Your task to perform on an android device: Play the latest video from the Wall Street Journal Image 0: 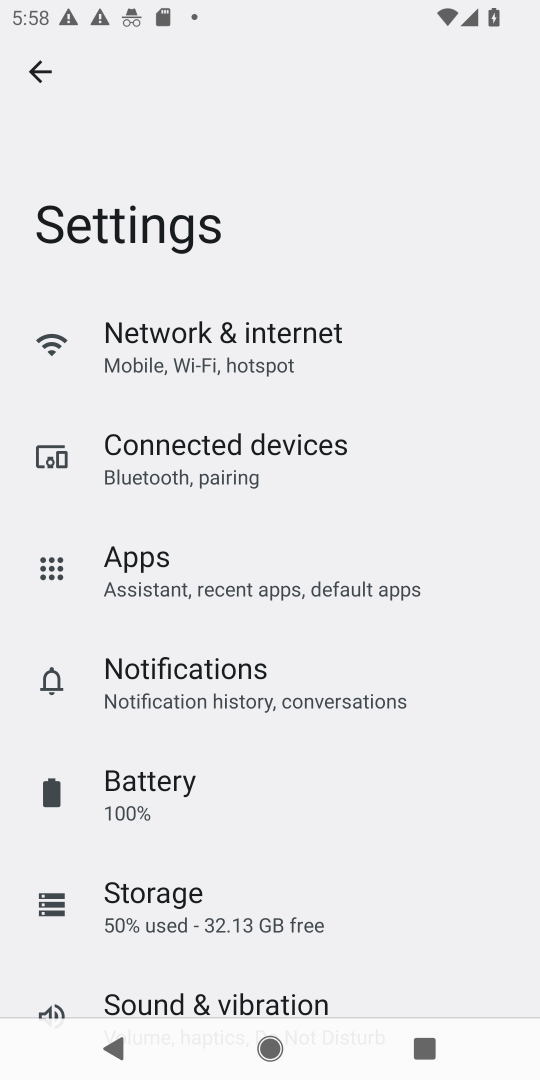
Step 0: press home button
Your task to perform on an android device: Play the latest video from the Wall Street Journal Image 1: 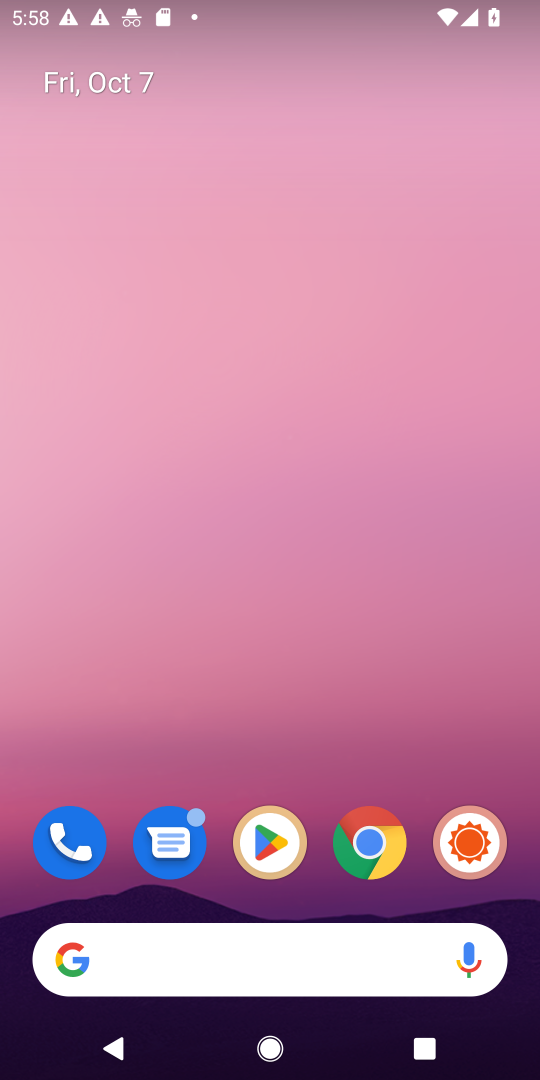
Step 1: click (249, 966)
Your task to perform on an android device: Play the latest video from the Wall Street Journal Image 2: 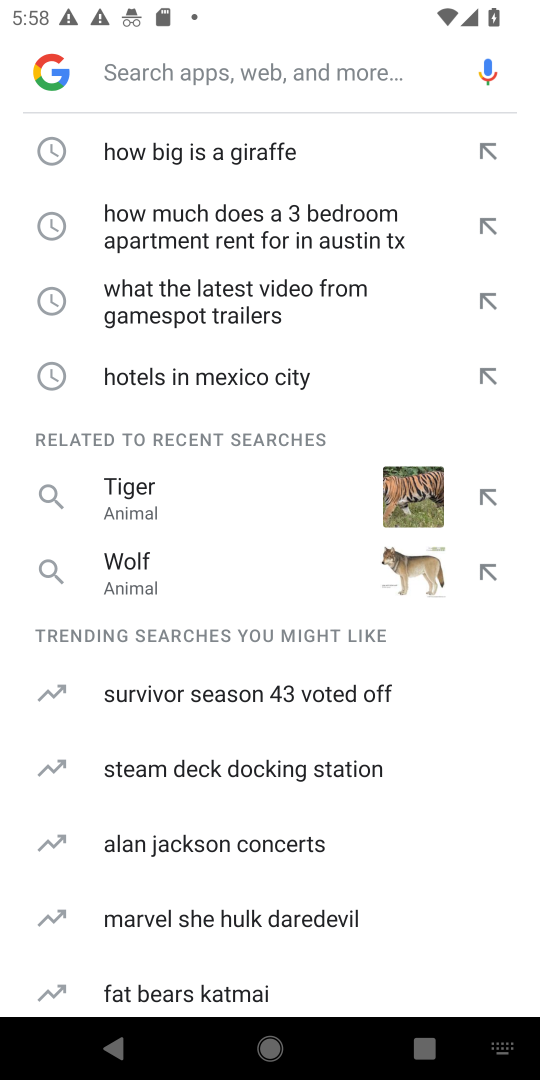
Step 2: type "Play the latest video from the Wall Street Journal"
Your task to perform on an android device: Play the latest video from the Wall Street Journal Image 3: 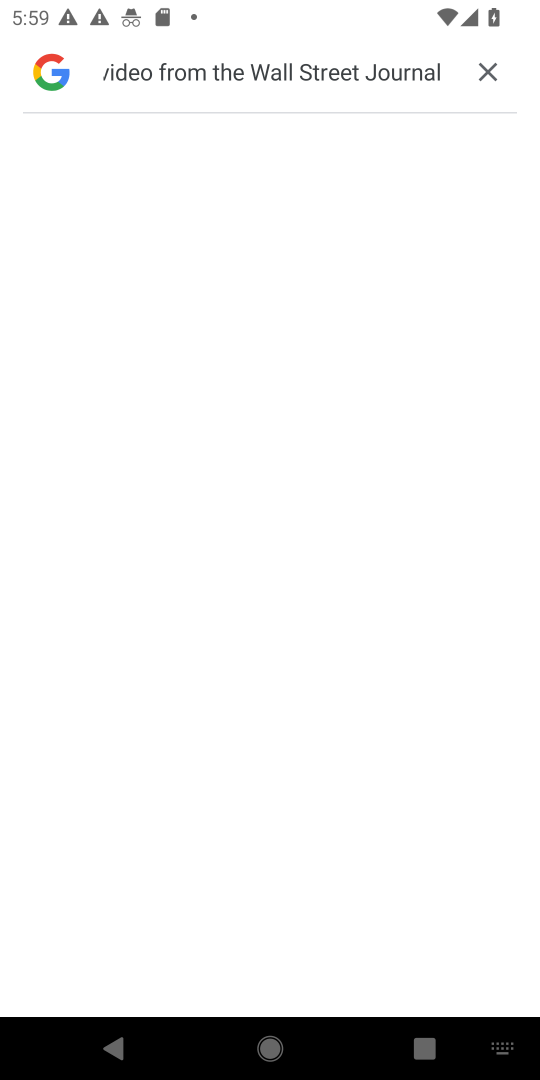
Step 3: press home button
Your task to perform on an android device: Play the latest video from the Wall Street Journal Image 4: 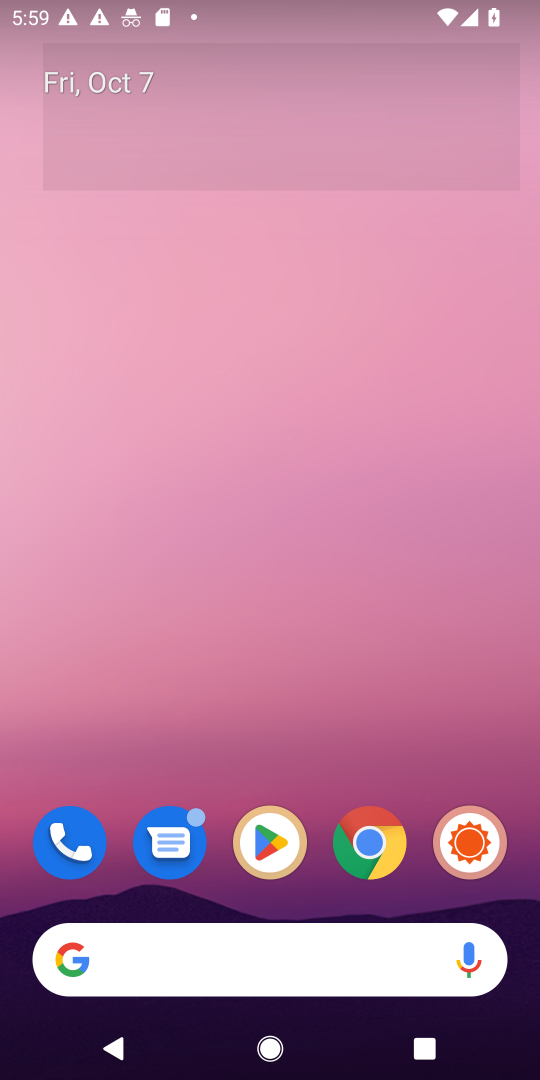
Step 4: drag from (275, 824) to (339, 107)
Your task to perform on an android device: Play the latest video from the Wall Street Journal Image 5: 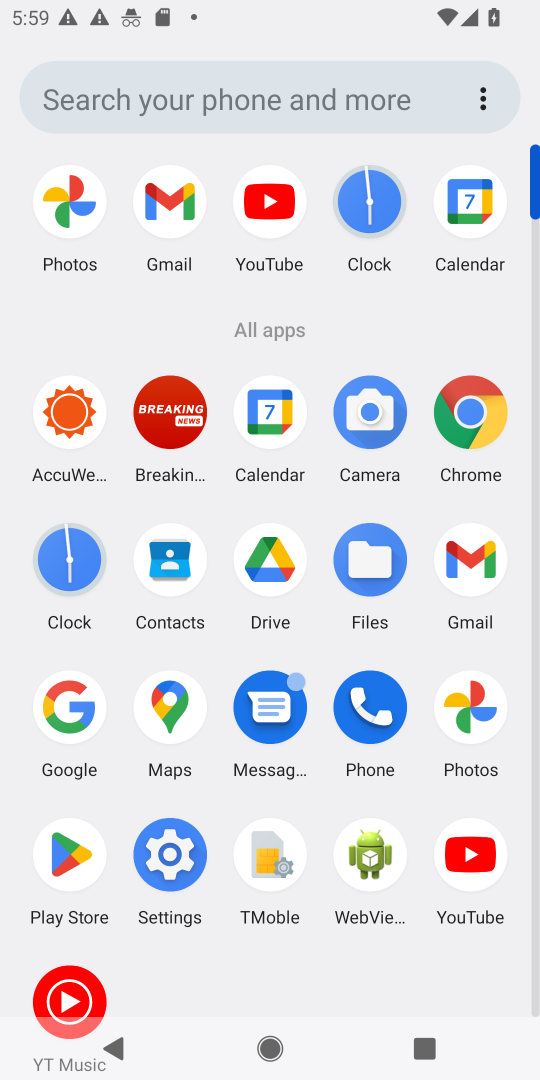
Step 5: click (264, 215)
Your task to perform on an android device: Play the latest video from the Wall Street Journal Image 6: 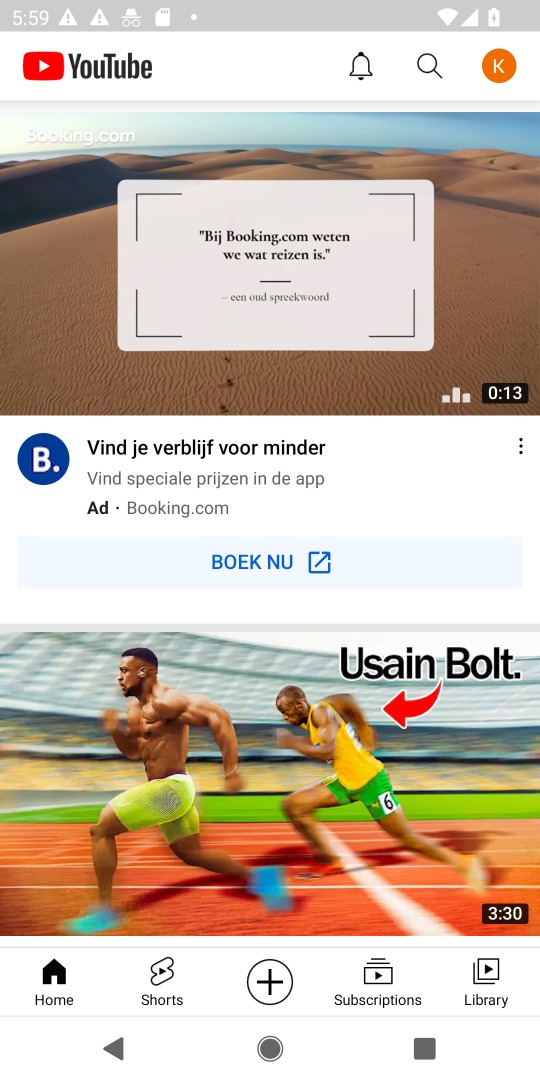
Step 6: click (423, 74)
Your task to perform on an android device: Play the latest video from the Wall Street Journal Image 7: 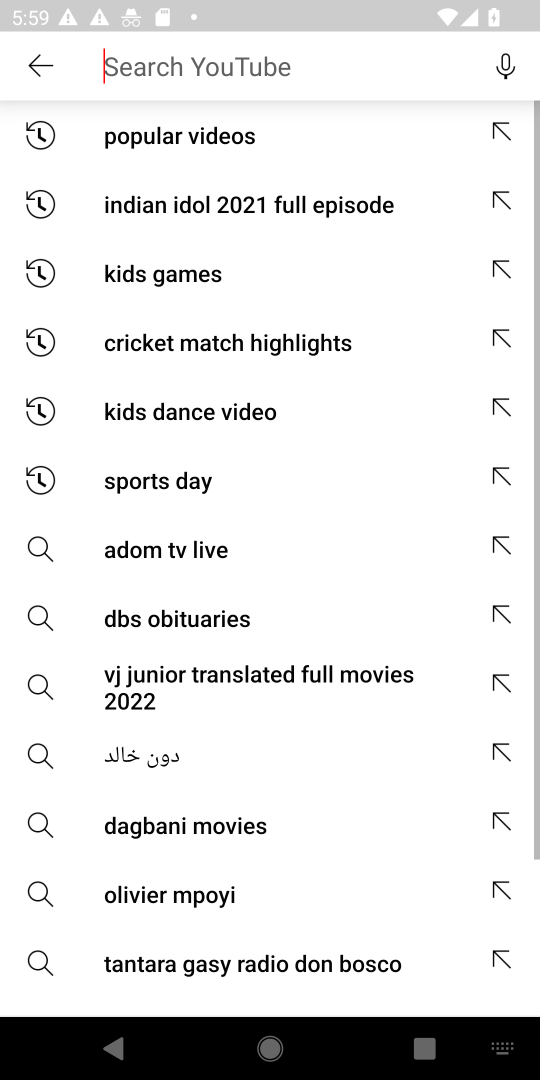
Step 7: click (187, 80)
Your task to perform on an android device: Play the latest video from the Wall Street Journal Image 8: 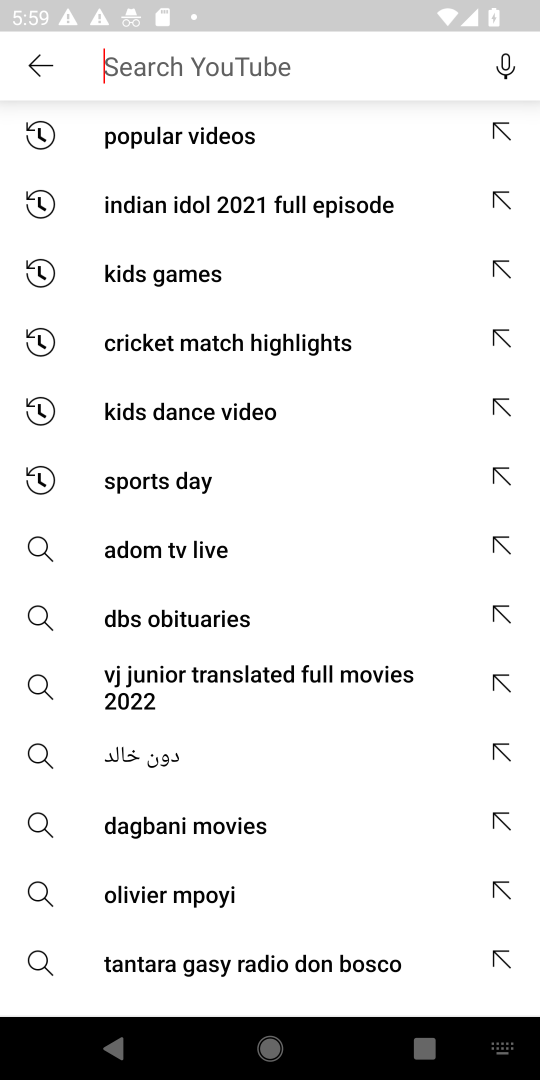
Step 8: type "Wall Street Journal"
Your task to perform on an android device: Play the latest video from the Wall Street Journal Image 9: 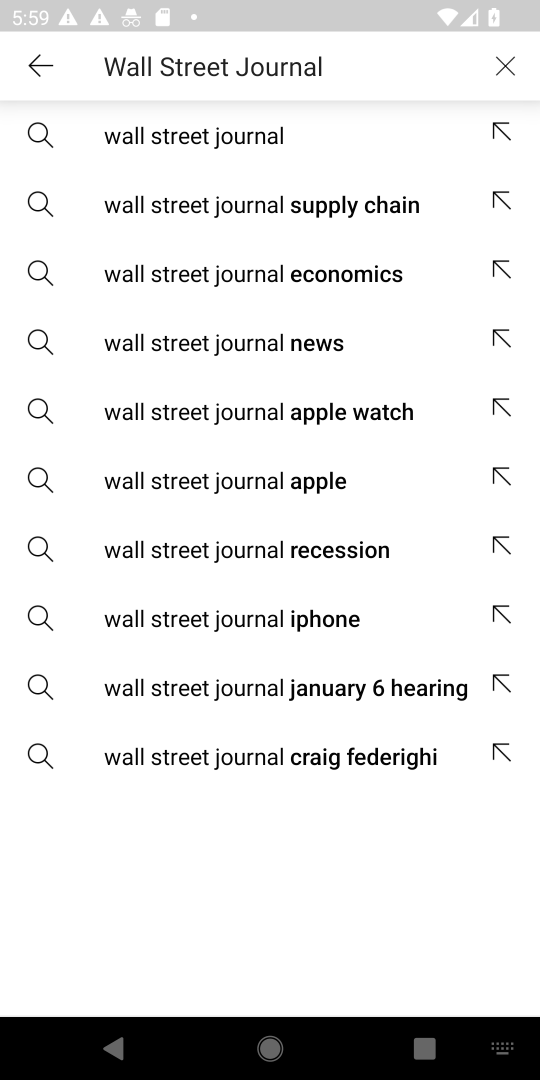
Step 9: click (176, 139)
Your task to perform on an android device: Play the latest video from the Wall Street Journal Image 10: 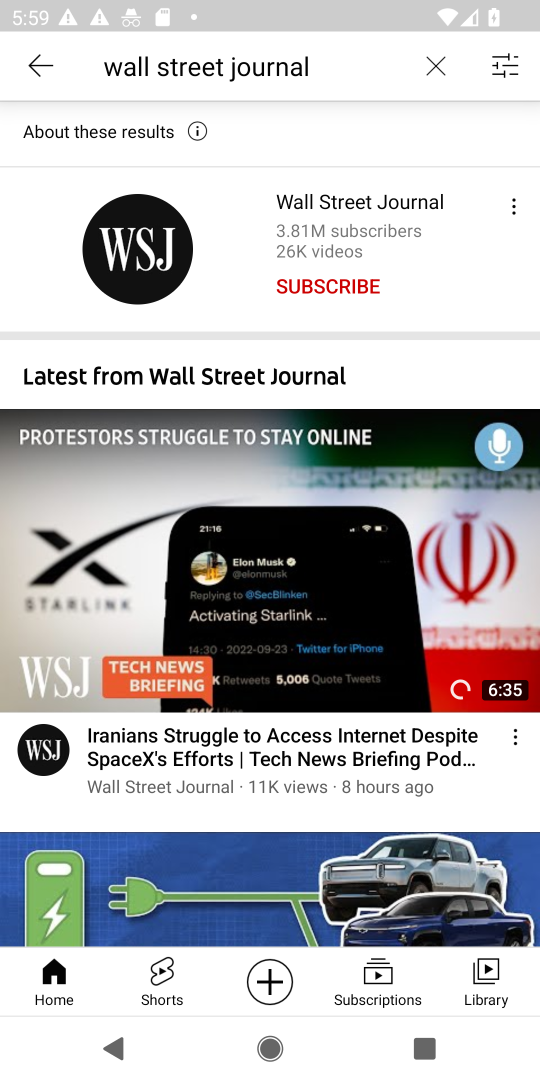
Step 10: click (346, 600)
Your task to perform on an android device: Play the latest video from the Wall Street Journal Image 11: 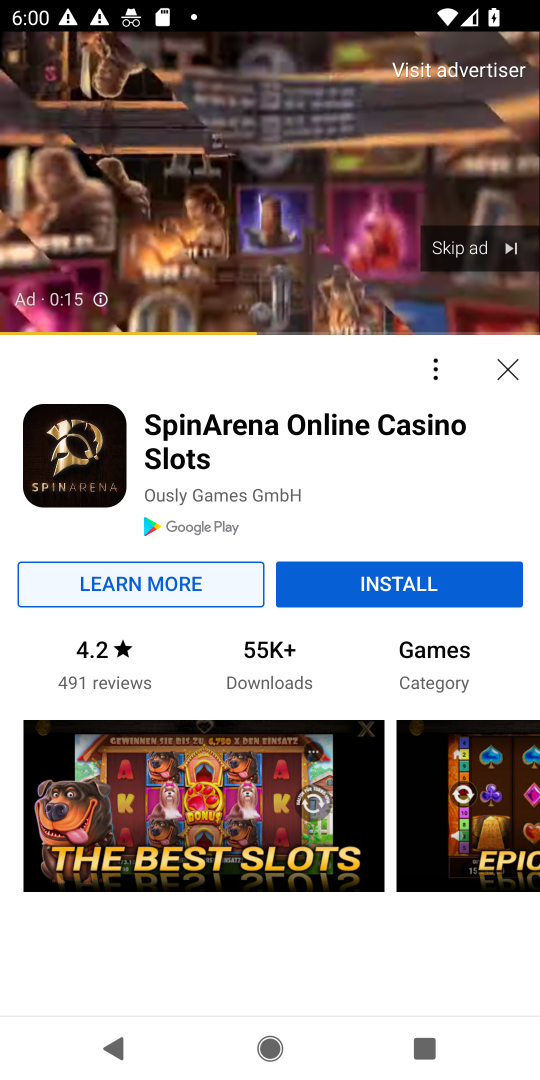
Step 11: click (499, 254)
Your task to perform on an android device: Play the latest video from the Wall Street Journal Image 12: 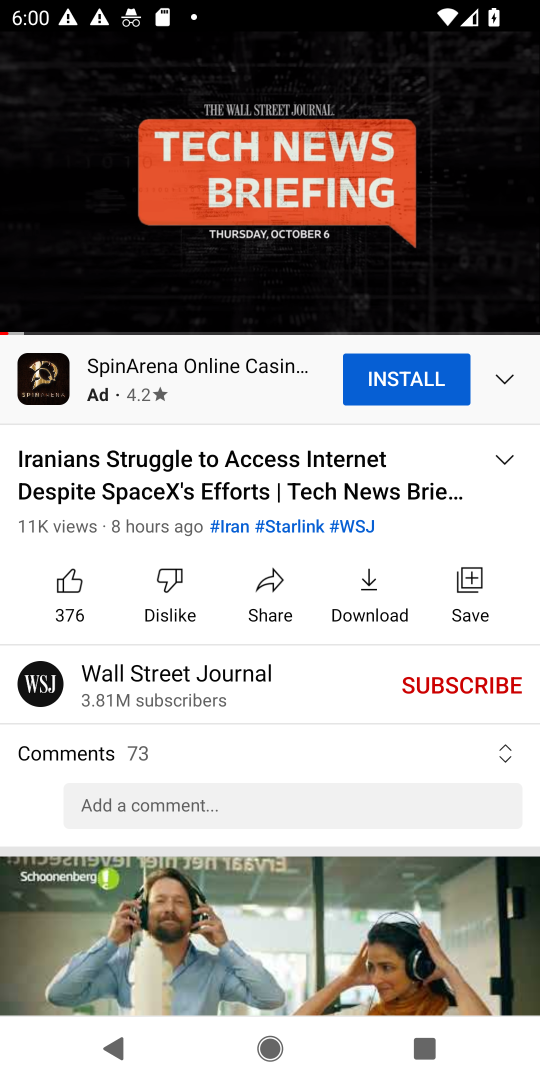
Step 12: click (238, 194)
Your task to perform on an android device: Play the latest video from the Wall Street Journal Image 13: 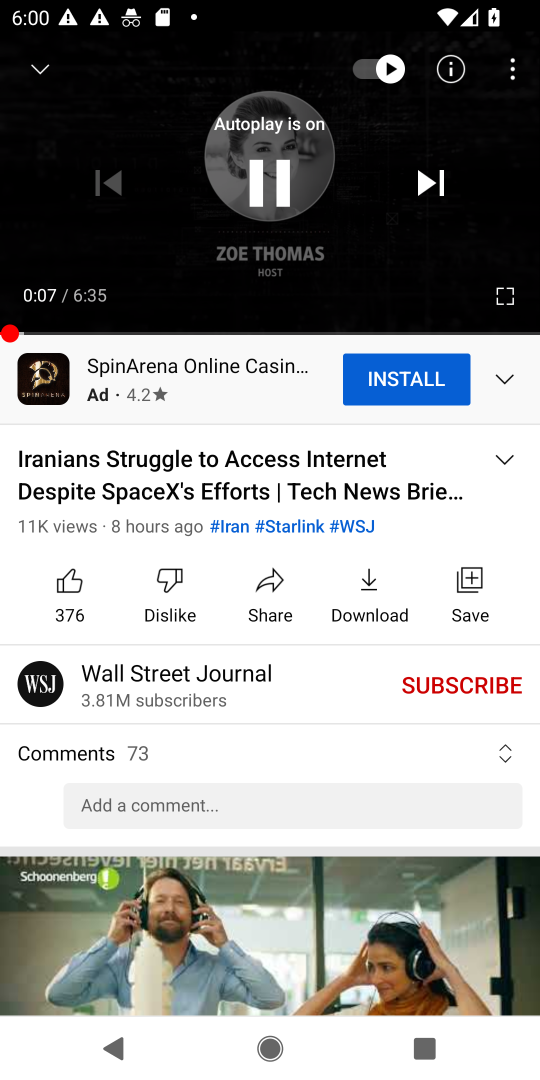
Step 13: click (272, 178)
Your task to perform on an android device: Play the latest video from the Wall Street Journal Image 14: 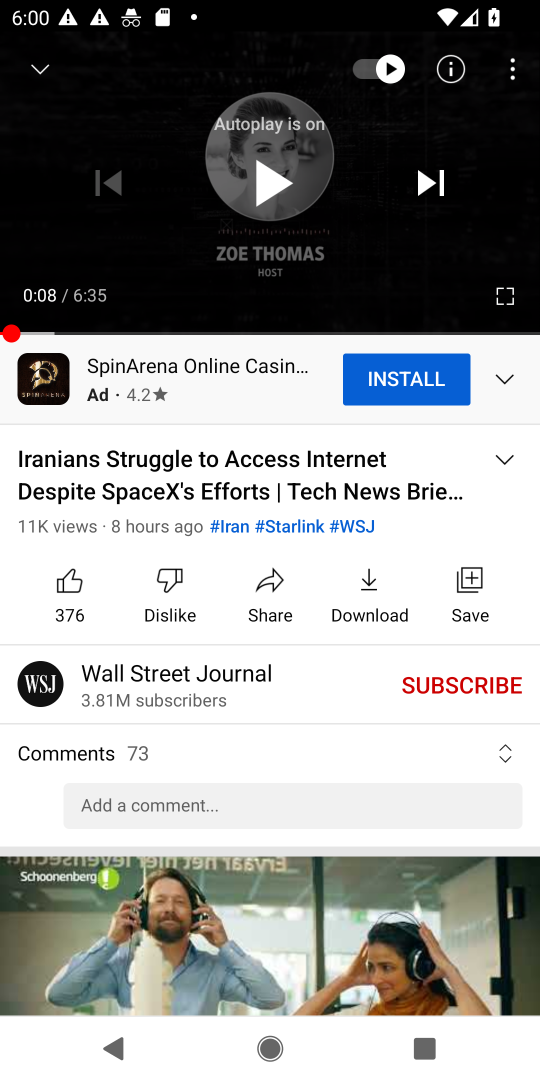
Step 14: task complete